Your task to perform on an android device: Google the capital of Panama Image 0: 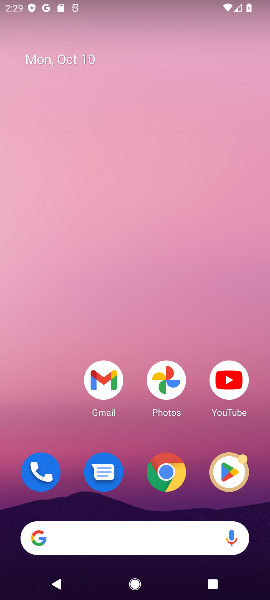
Step 0: click (111, 531)
Your task to perform on an android device: Google the capital of Panama Image 1: 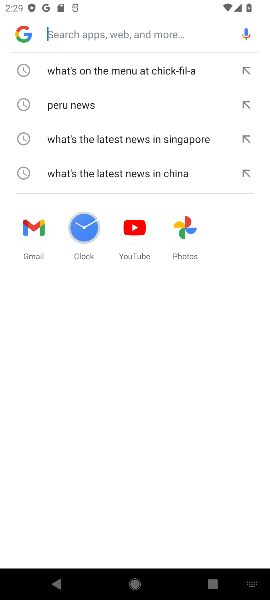
Step 1: type "the capital of Panama"
Your task to perform on an android device: Google the capital of Panama Image 2: 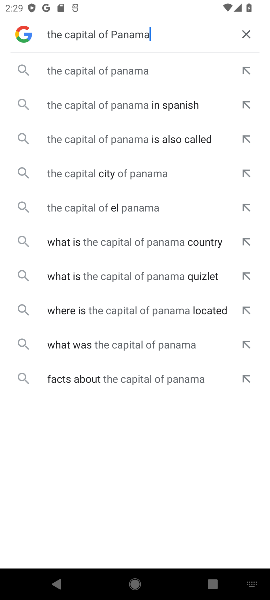
Step 2: click (74, 69)
Your task to perform on an android device: Google the capital of Panama Image 3: 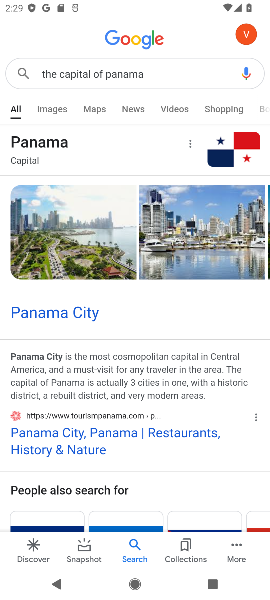
Step 3: task complete